Your task to perform on an android device: Open calendar and show me the fourth week of next month Image 0: 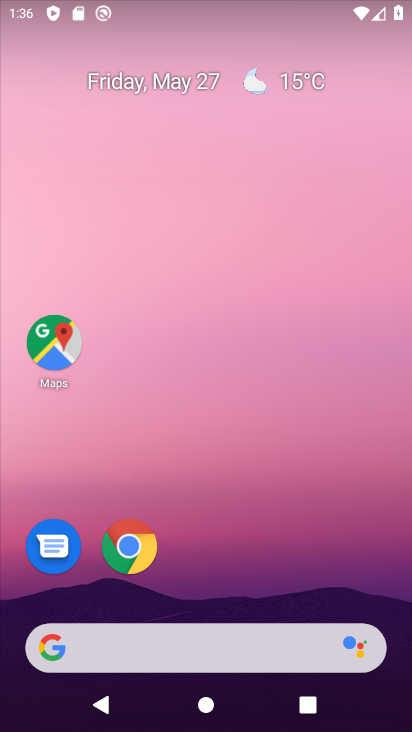
Step 0: drag from (349, 559) to (315, 70)
Your task to perform on an android device: Open calendar and show me the fourth week of next month Image 1: 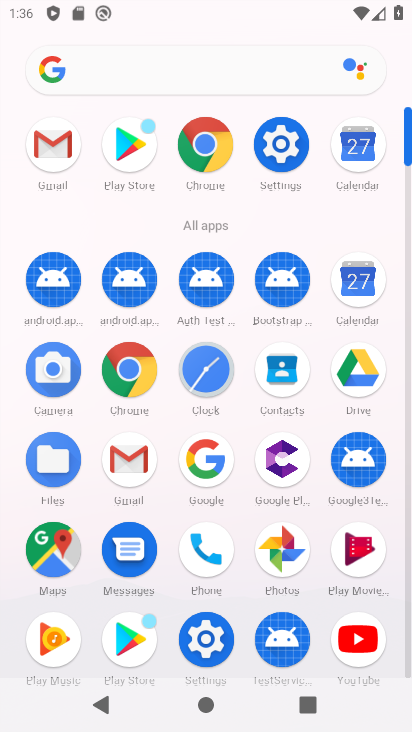
Step 1: click (347, 294)
Your task to perform on an android device: Open calendar and show me the fourth week of next month Image 2: 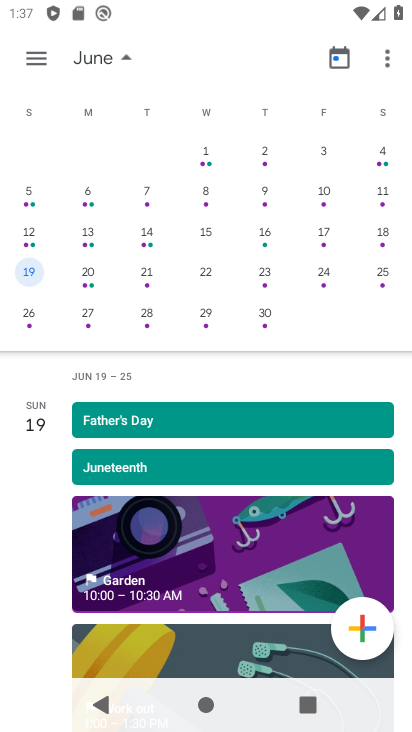
Step 2: task complete